Your task to perform on an android device: Show me productivity apps on the Play Store Image 0: 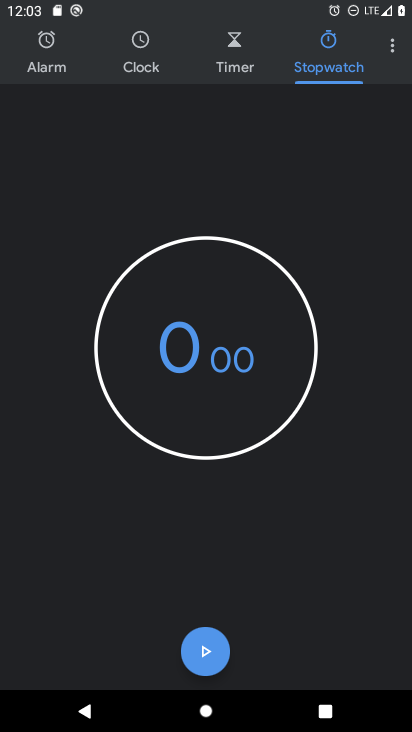
Step 0: press home button
Your task to perform on an android device: Show me productivity apps on the Play Store Image 1: 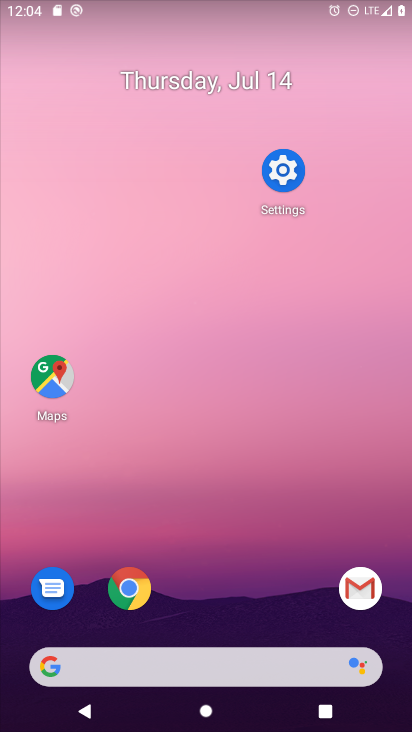
Step 1: drag from (255, 691) to (221, 56)
Your task to perform on an android device: Show me productivity apps on the Play Store Image 2: 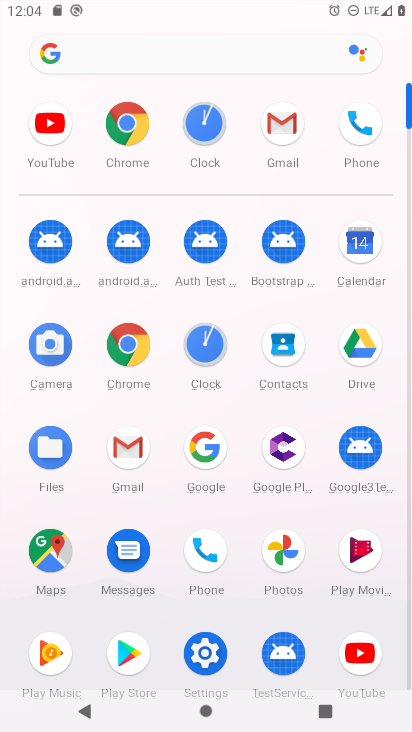
Step 2: click (135, 644)
Your task to perform on an android device: Show me productivity apps on the Play Store Image 3: 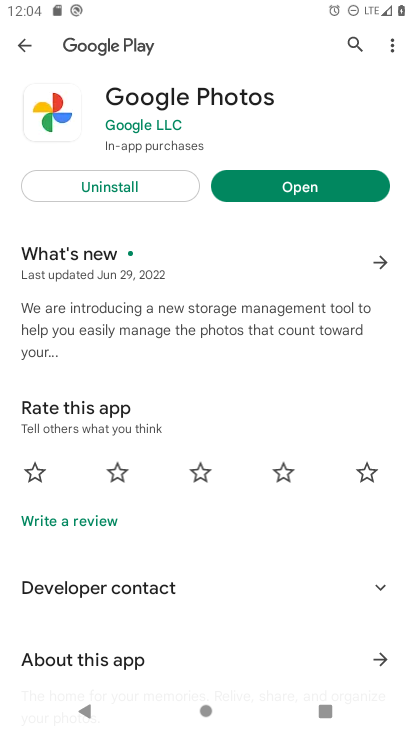
Step 3: click (349, 36)
Your task to perform on an android device: Show me productivity apps on the Play Store Image 4: 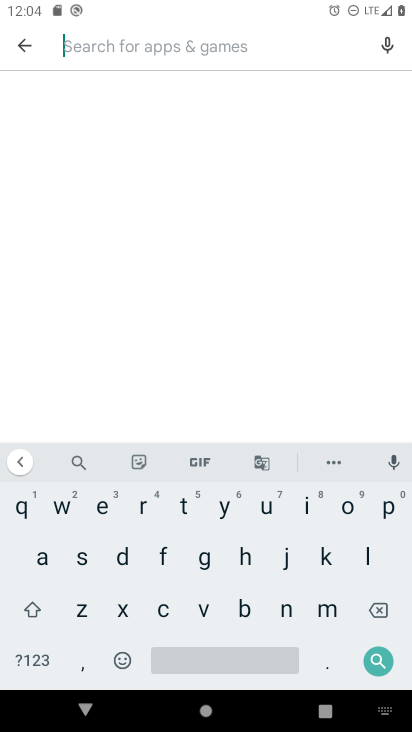
Step 4: click (387, 511)
Your task to perform on an android device: Show me productivity apps on the Play Store Image 5: 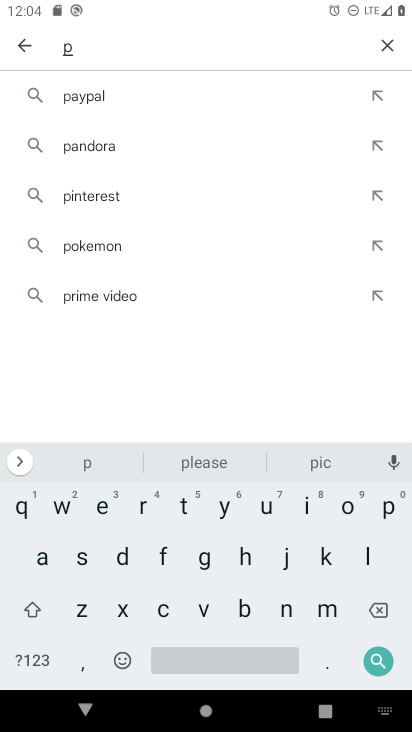
Step 5: click (147, 505)
Your task to perform on an android device: Show me productivity apps on the Play Store Image 6: 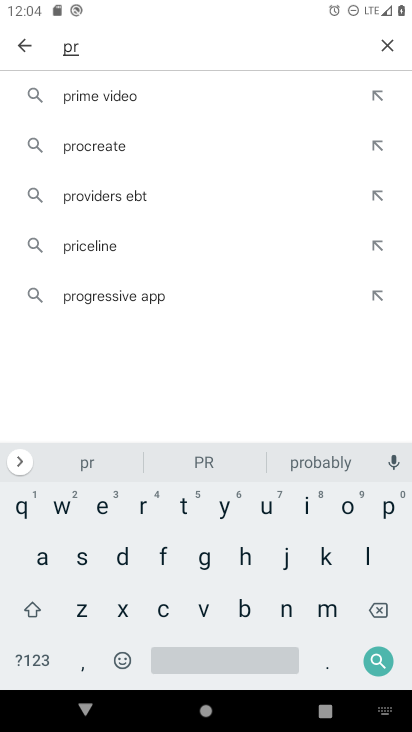
Step 6: click (349, 504)
Your task to perform on an android device: Show me productivity apps on the Play Store Image 7: 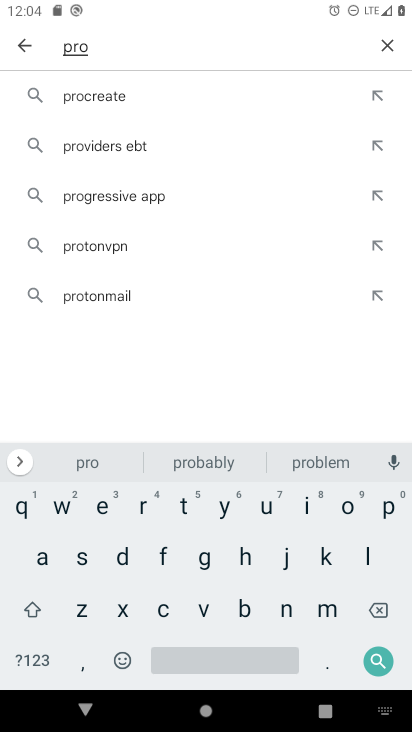
Step 7: click (122, 561)
Your task to perform on an android device: Show me productivity apps on the Play Store Image 8: 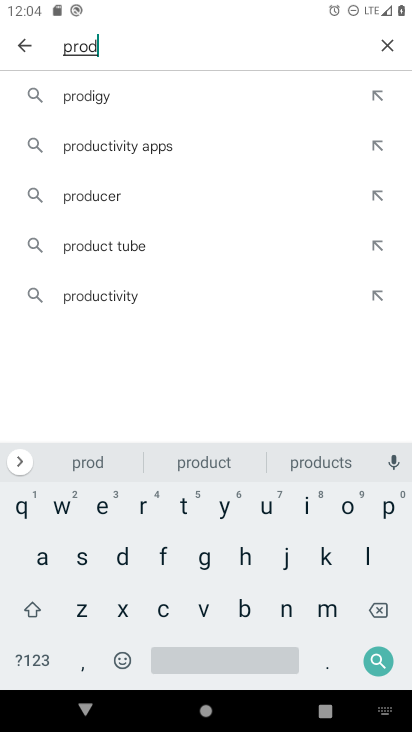
Step 8: click (266, 511)
Your task to perform on an android device: Show me productivity apps on the Play Store Image 9: 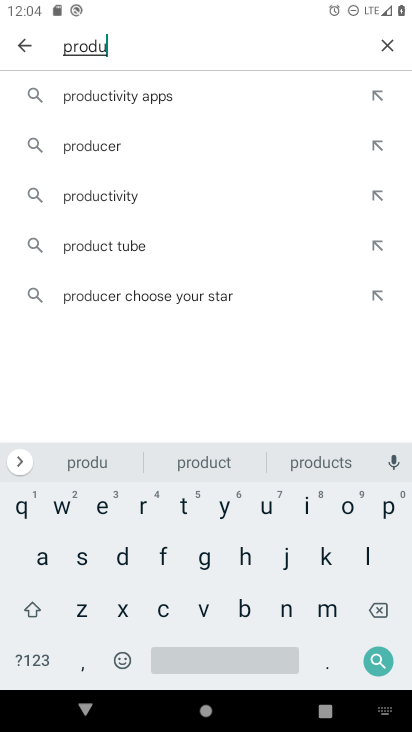
Step 9: click (117, 102)
Your task to perform on an android device: Show me productivity apps on the Play Store Image 10: 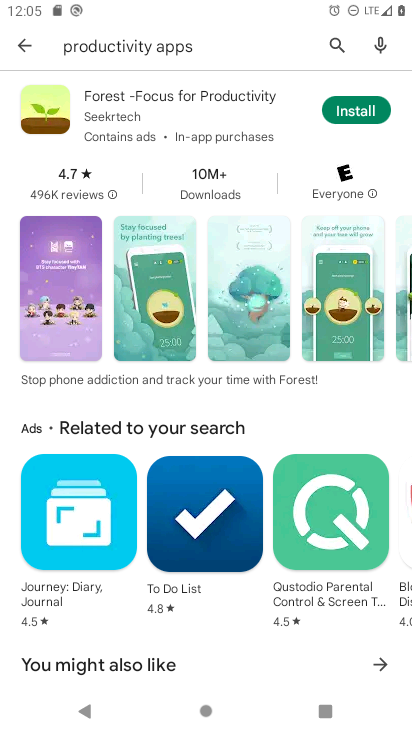
Step 10: task complete